Your task to perform on an android device: search for starred emails in the gmail app Image 0: 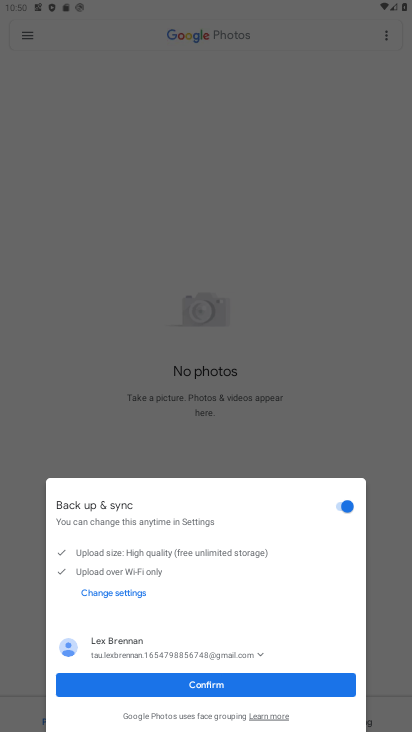
Step 0: press home button
Your task to perform on an android device: search for starred emails in the gmail app Image 1: 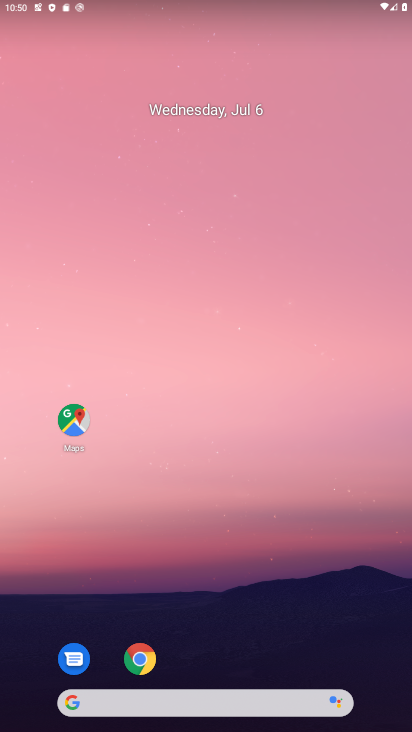
Step 1: drag from (199, 580) to (127, 96)
Your task to perform on an android device: search for starred emails in the gmail app Image 2: 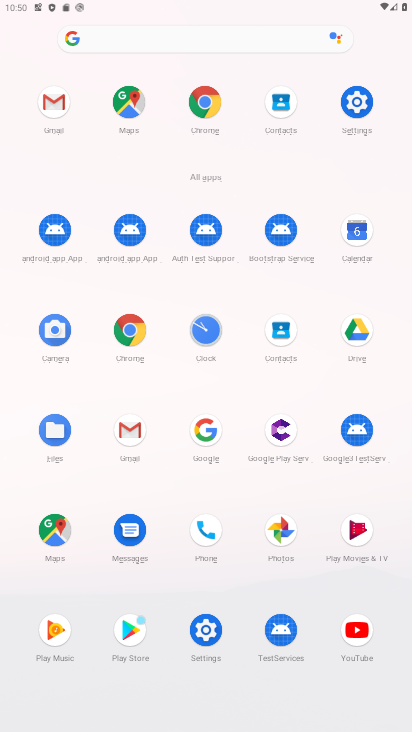
Step 2: click (126, 430)
Your task to perform on an android device: search for starred emails in the gmail app Image 3: 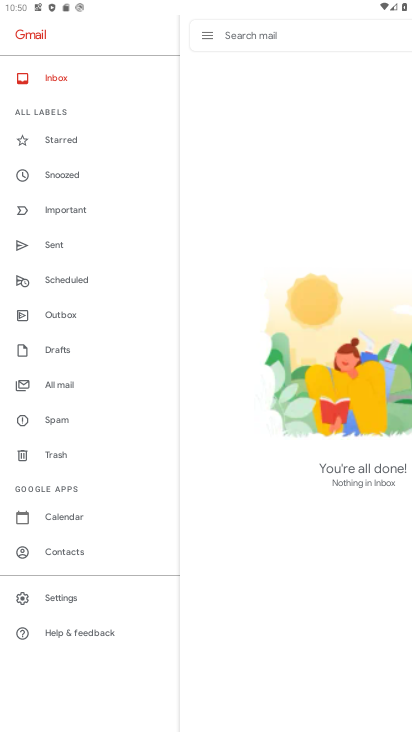
Step 3: click (59, 139)
Your task to perform on an android device: search for starred emails in the gmail app Image 4: 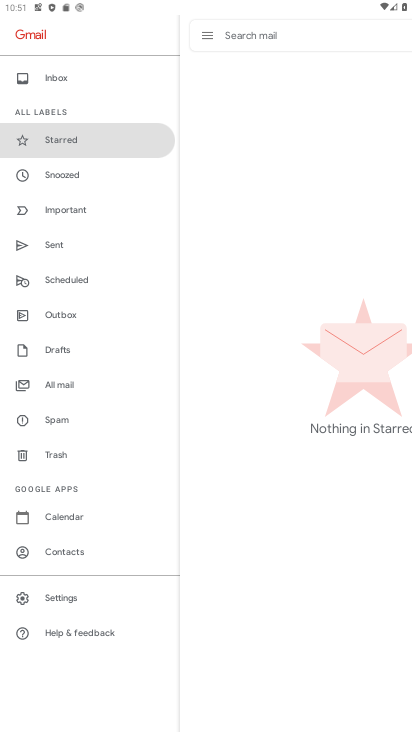
Step 4: task complete